Your task to perform on an android device: check battery use Image 0: 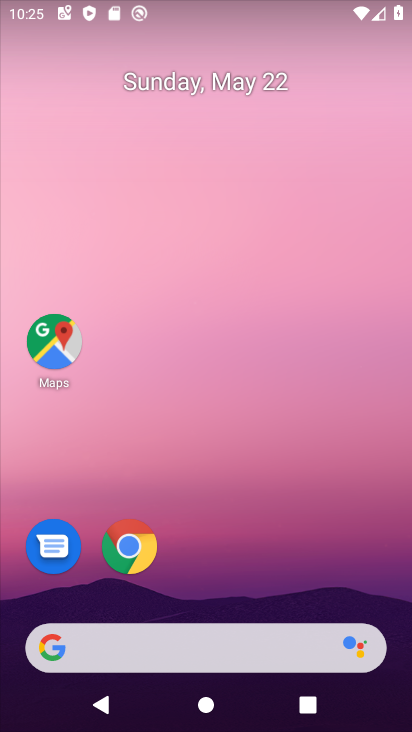
Step 0: drag from (211, 590) to (229, 55)
Your task to perform on an android device: check battery use Image 1: 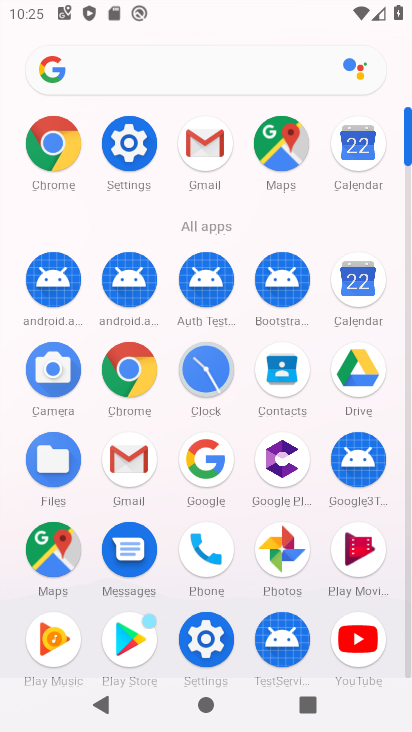
Step 1: click (132, 156)
Your task to perform on an android device: check battery use Image 2: 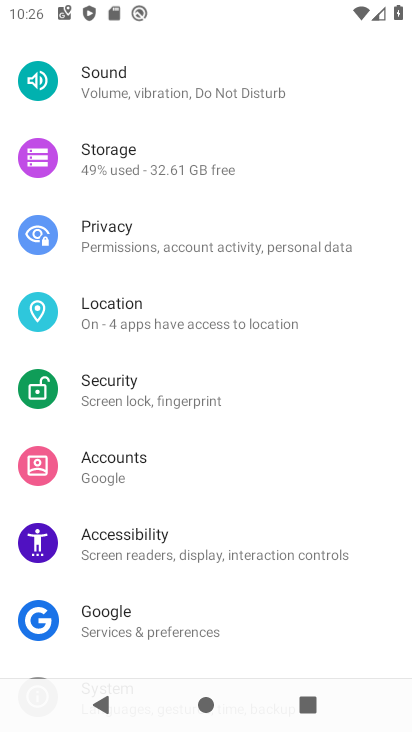
Step 2: drag from (198, 251) to (174, 571)
Your task to perform on an android device: check battery use Image 3: 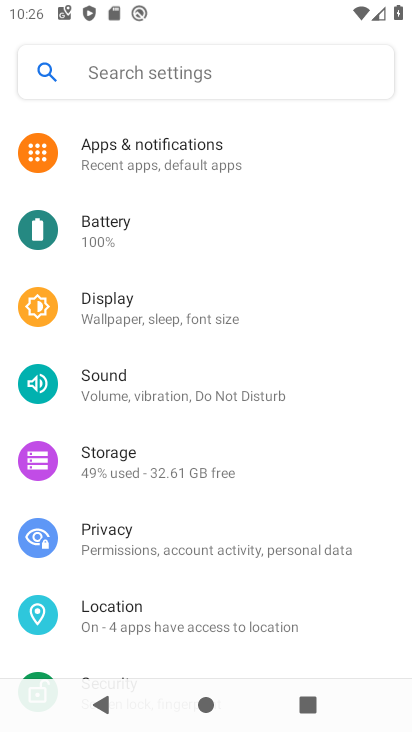
Step 3: click (145, 231)
Your task to perform on an android device: check battery use Image 4: 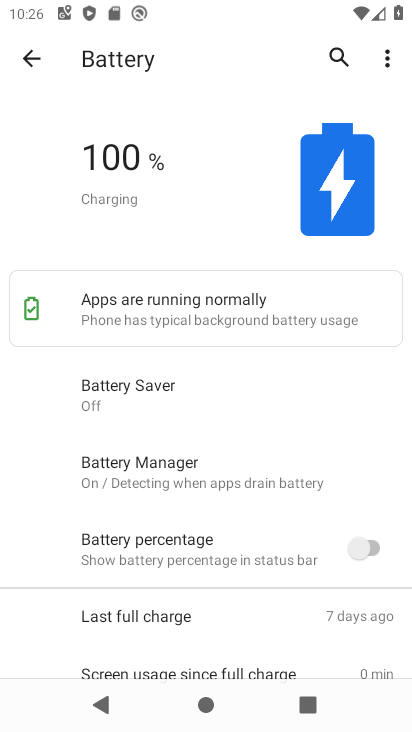
Step 4: click (387, 62)
Your task to perform on an android device: check battery use Image 5: 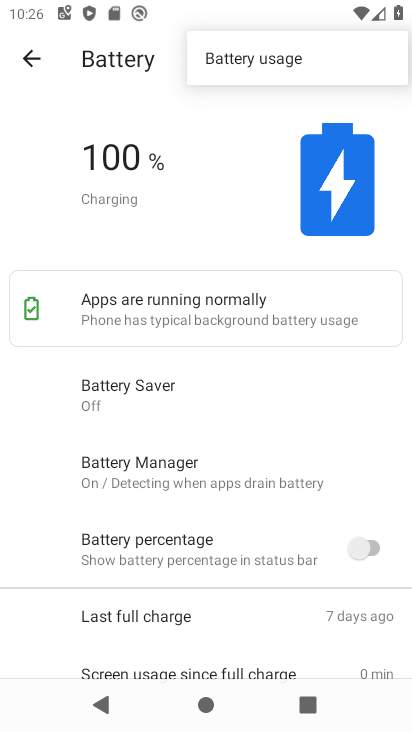
Step 5: click (270, 54)
Your task to perform on an android device: check battery use Image 6: 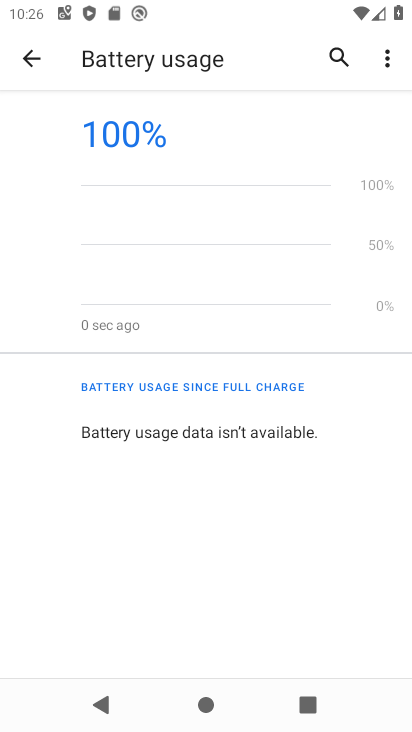
Step 6: task complete